Your task to perform on an android device: Show me popular videos on Youtube Image 0: 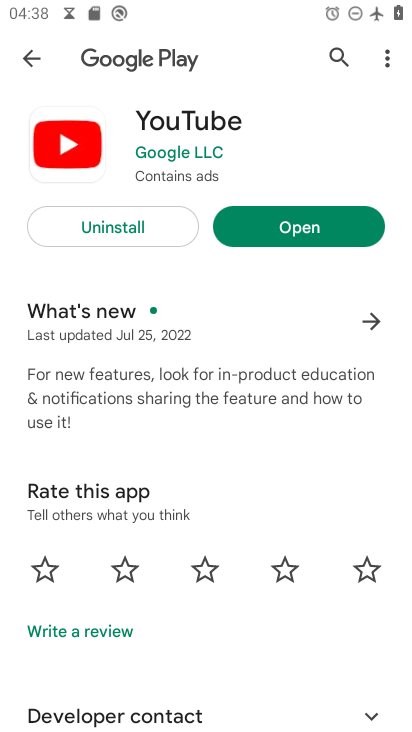
Step 0: press home button
Your task to perform on an android device: Show me popular videos on Youtube Image 1: 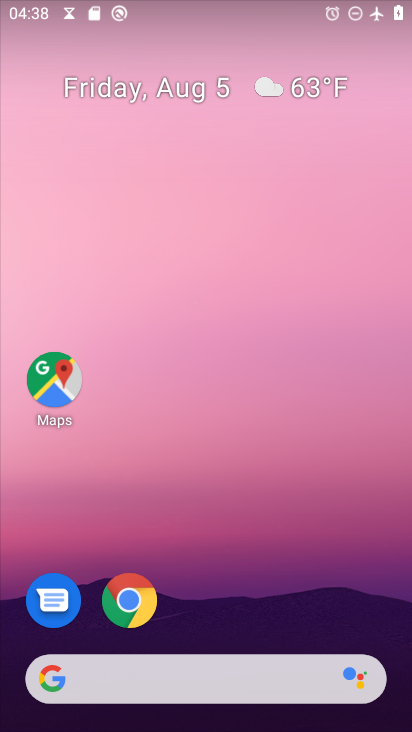
Step 1: drag from (189, 683) to (212, 143)
Your task to perform on an android device: Show me popular videos on Youtube Image 2: 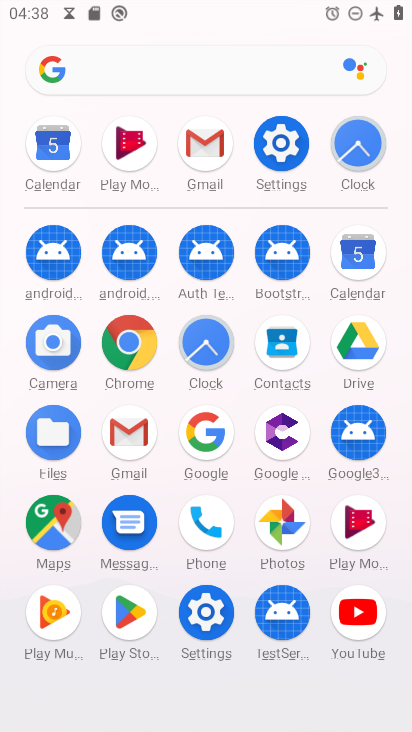
Step 2: click (357, 610)
Your task to perform on an android device: Show me popular videos on Youtube Image 3: 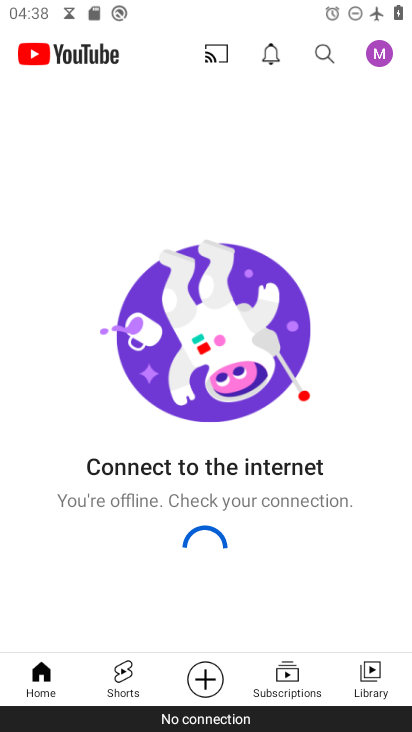
Step 3: click (324, 54)
Your task to perform on an android device: Show me popular videos on Youtube Image 4: 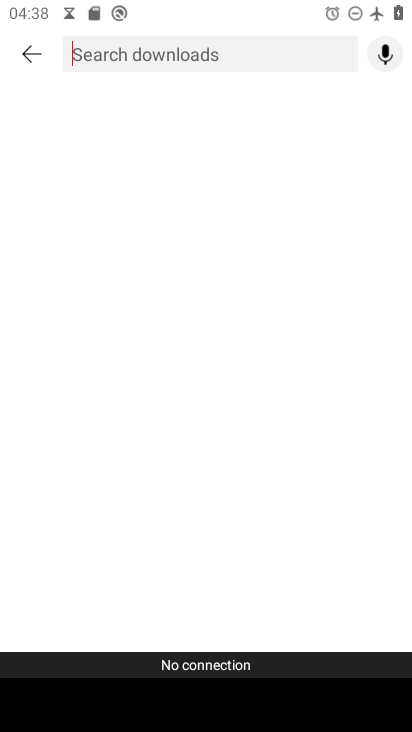
Step 4: click (154, 50)
Your task to perform on an android device: Show me popular videos on Youtube Image 5: 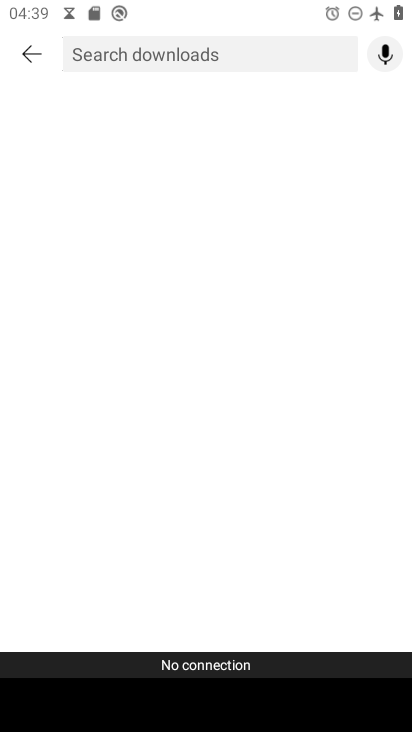
Step 5: type "popular video"
Your task to perform on an android device: Show me popular videos on Youtube Image 6: 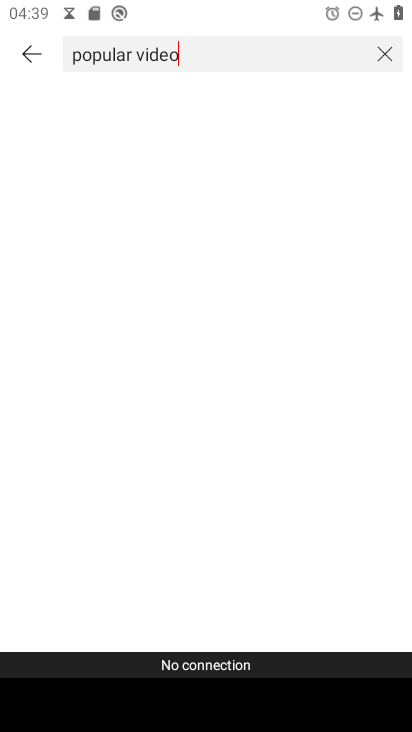
Step 6: task complete